Your task to perform on an android device: open wifi settings Image 0: 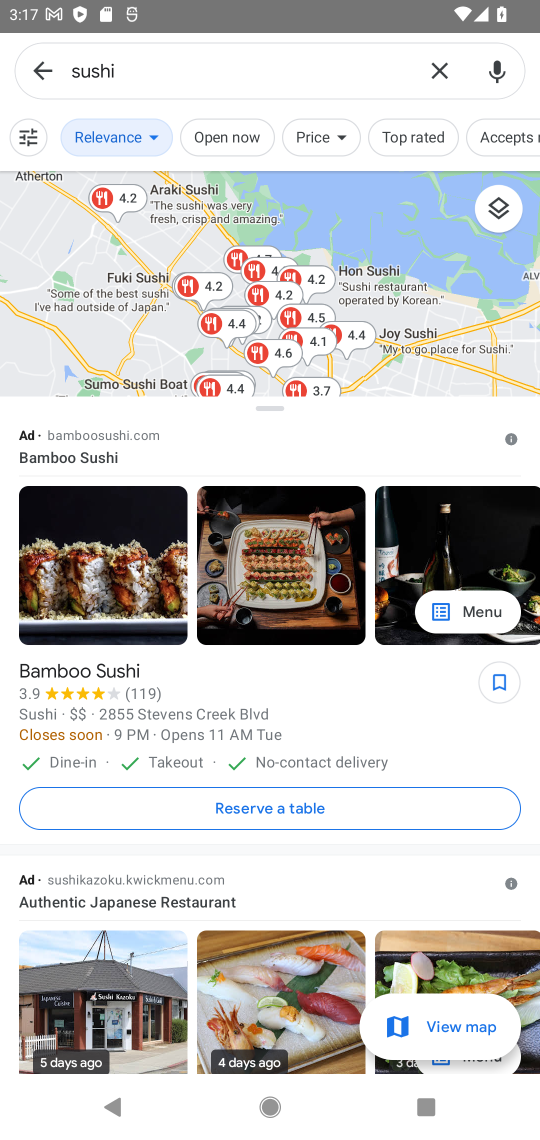
Step 0: press home button
Your task to perform on an android device: open wifi settings Image 1: 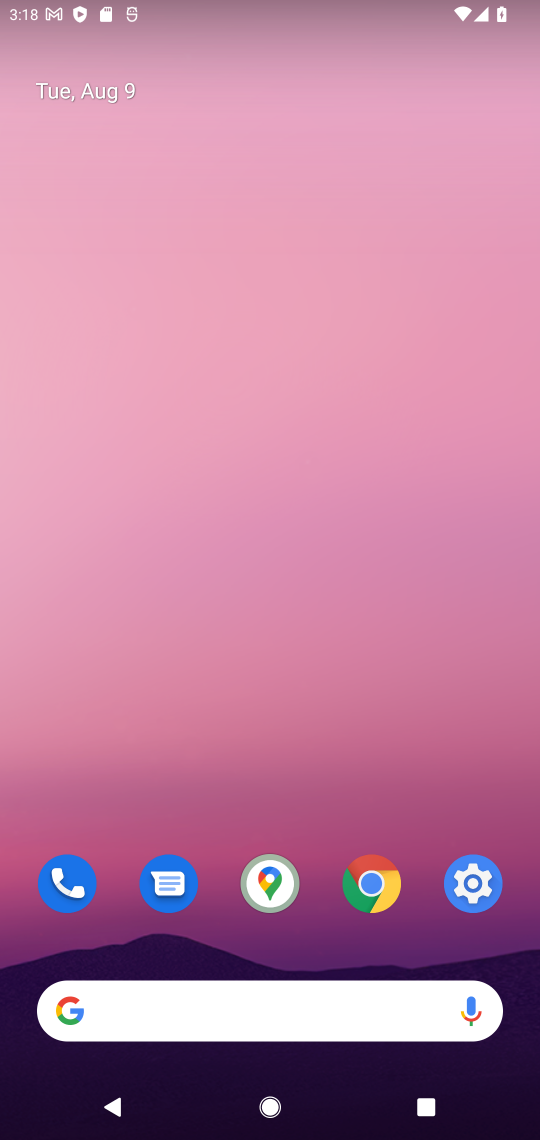
Step 1: click (460, 887)
Your task to perform on an android device: open wifi settings Image 2: 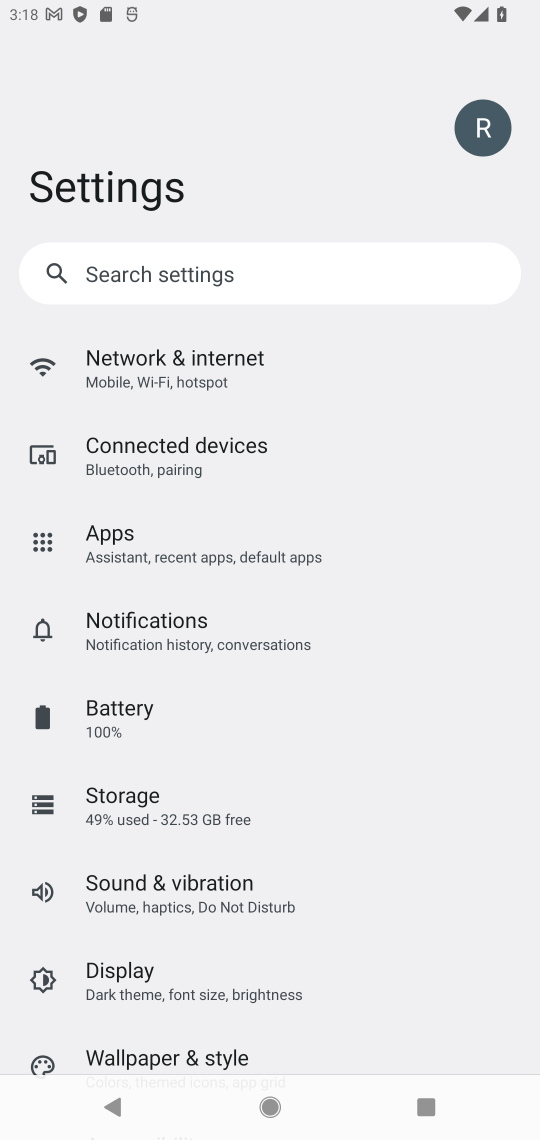
Step 2: click (169, 370)
Your task to perform on an android device: open wifi settings Image 3: 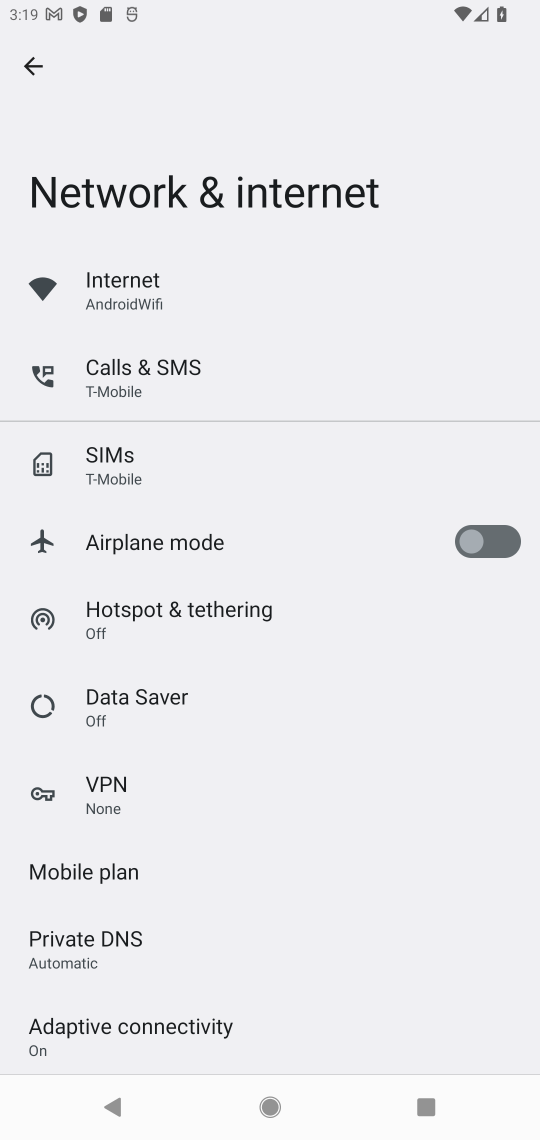
Step 3: task complete